Your task to perform on an android device: set the stopwatch Image 0: 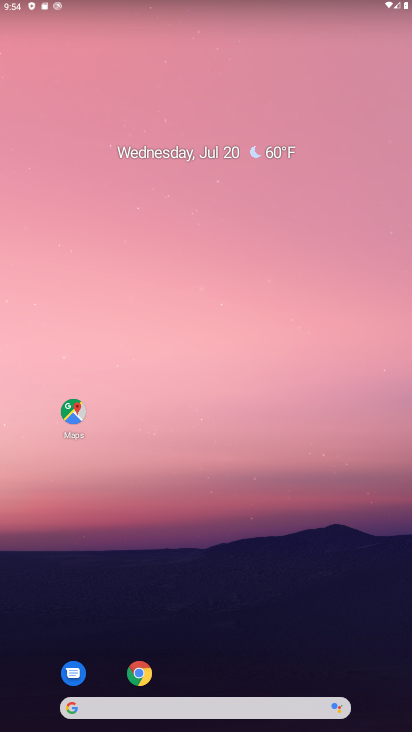
Step 0: drag from (241, 688) to (257, 157)
Your task to perform on an android device: set the stopwatch Image 1: 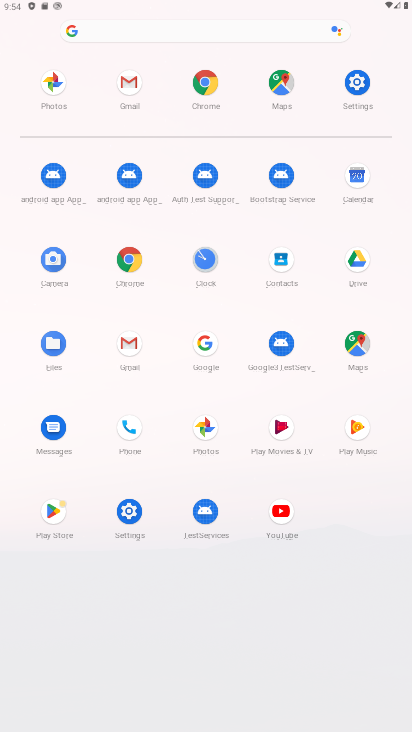
Step 1: click (205, 267)
Your task to perform on an android device: set the stopwatch Image 2: 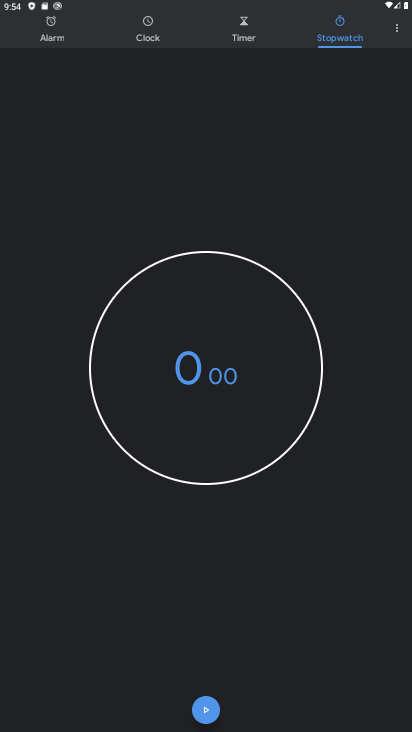
Step 2: click (203, 704)
Your task to perform on an android device: set the stopwatch Image 3: 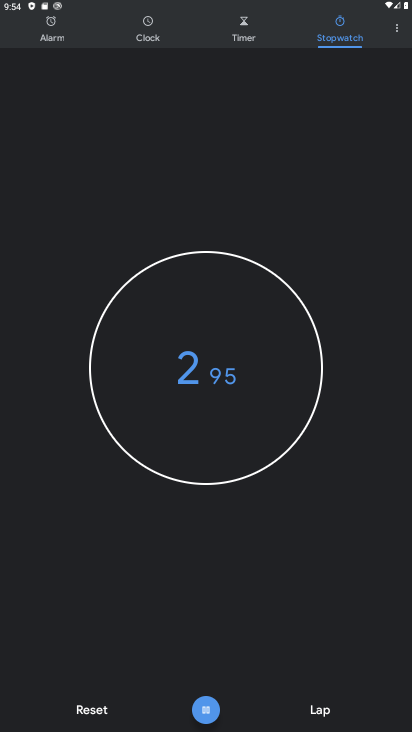
Step 3: task complete